Your task to perform on an android device: turn on bluetooth scan Image 0: 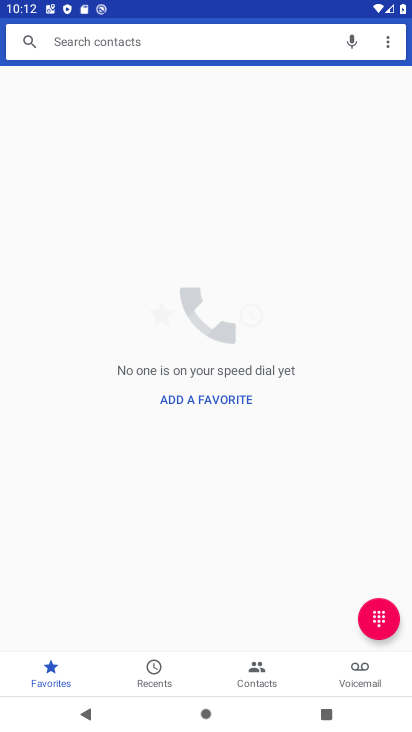
Step 0: press home button
Your task to perform on an android device: turn on bluetooth scan Image 1: 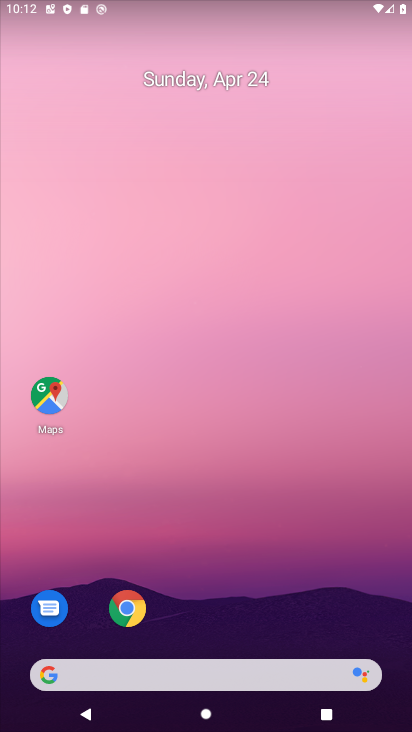
Step 1: drag from (260, 606) to (377, 32)
Your task to perform on an android device: turn on bluetooth scan Image 2: 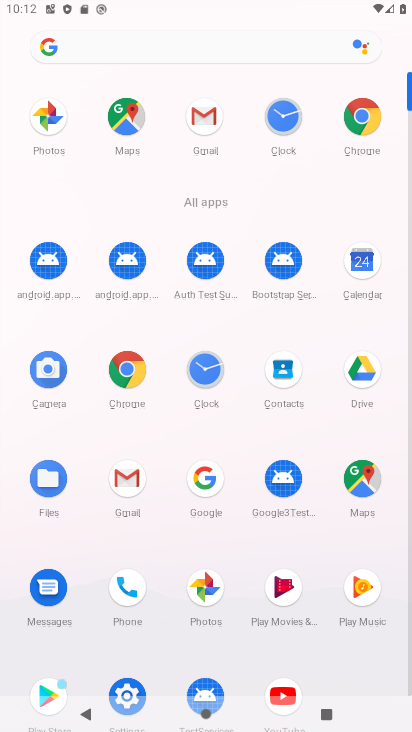
Step 2: drag from (159, 640) to (192, 397)
Your task to perform on an android device: turn on bluetooth scan Image 3: 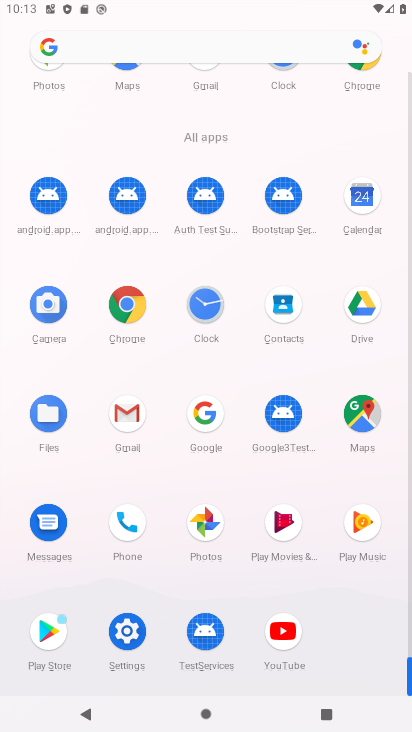
Step 3: click (130, 630)
Your task to perform on an android device: turn on bluetooth scan Image 4: 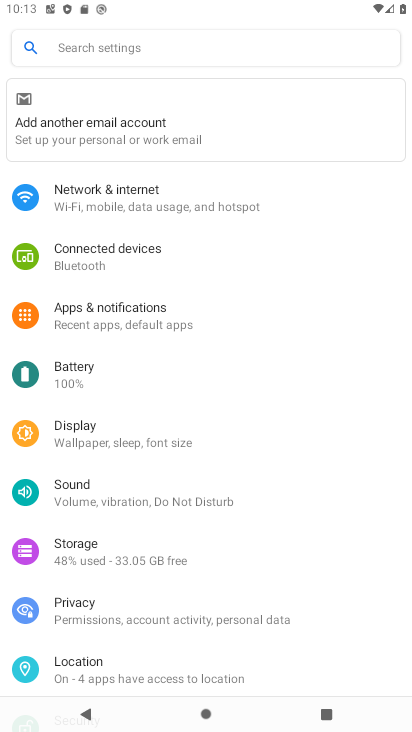
Step 4: drag from (253, 553) to (351, 176)
Your task to perform on an android device: turn on bluetooth scan Image 5: 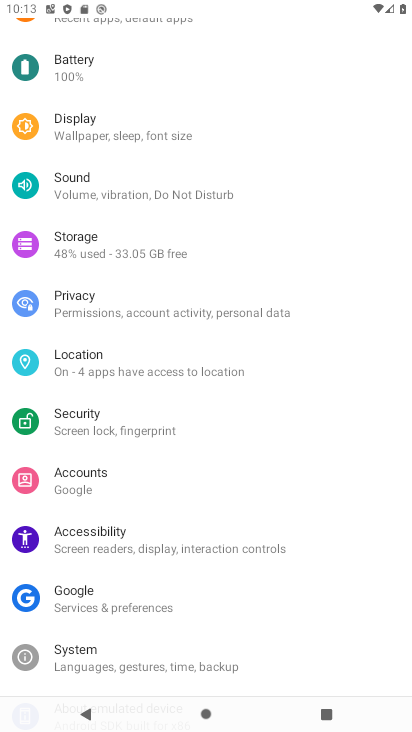
Step 5: click (132, 366)
Your task to perform on an android device: turn on bluetooth scan Image 6: 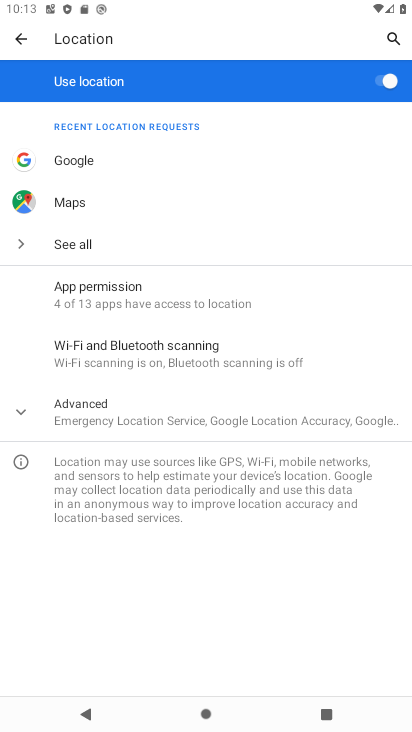
Step 6: click (136, 422)
Your task to perform on an android device: turn on bluetooth scan Image 7: 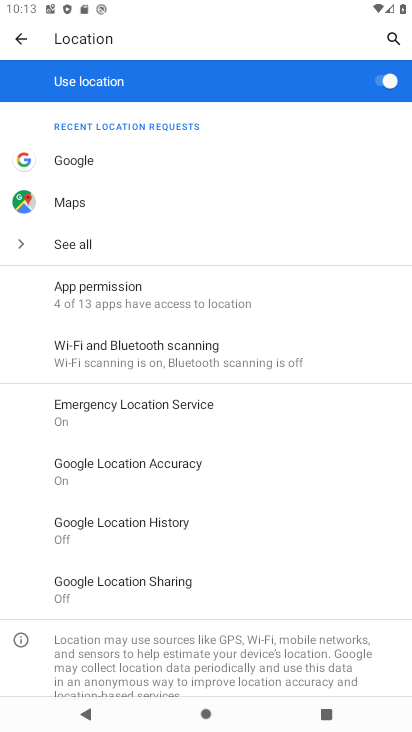
Step 7: drag from (183, 236) to (231, 533)
Your task to perform on an android device: turn on bluetooth scan Image 8: 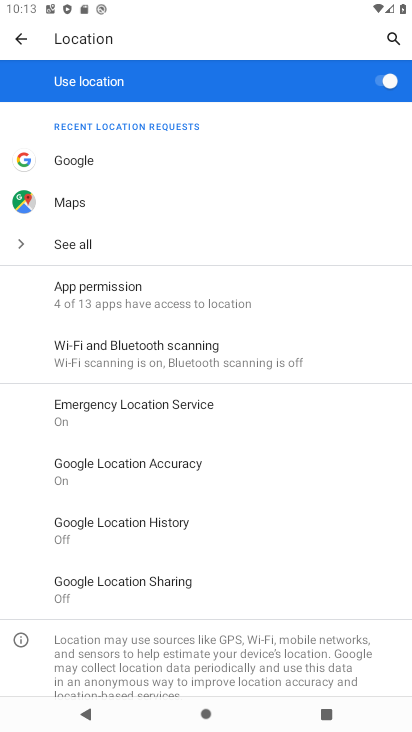
Step 8: drag from (222, 554) to (353, 233)
Your task to perform on an android device: turn on bluetooth scan Image 9: 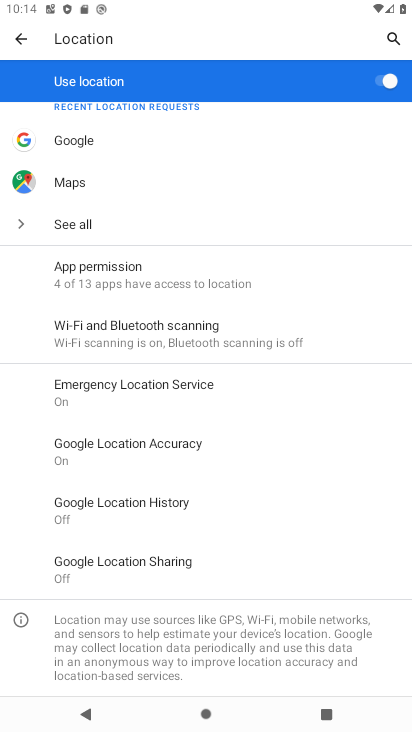
Step 9: click (205, 328)
Your task to perform on an android device: turn on bluetooth scan Image 10: 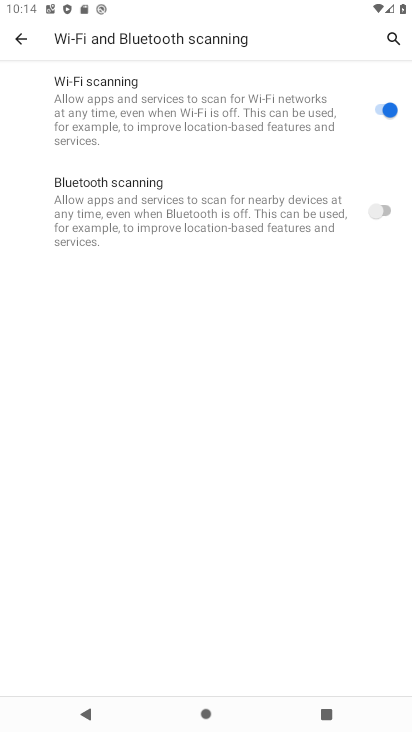
Step 10: click (369, 217)
Your task to perform on an android device: turn on bluetooth scan Image 11: 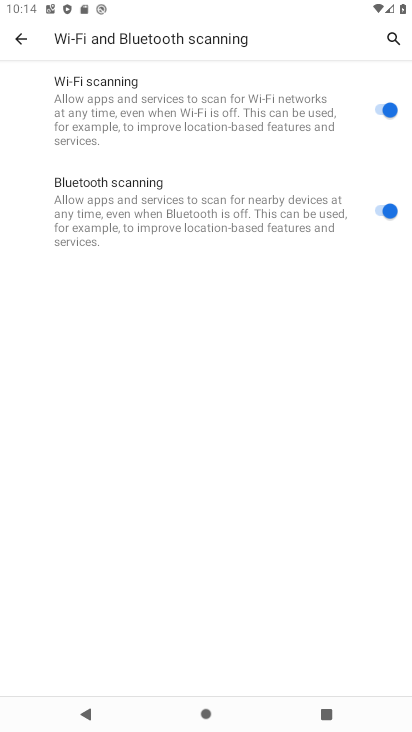
Step 11: task complete